Your task to perform on an android device: change keyboard looks Image 0: 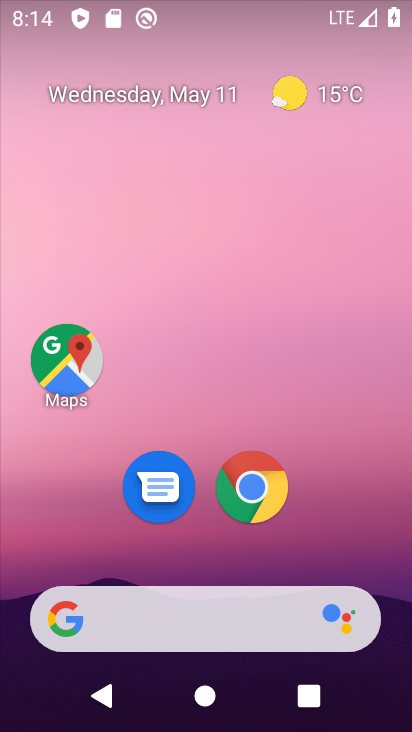
Step 0: click (267, 336)
Your task to perform on an android device: change keyboard looks Image 1: 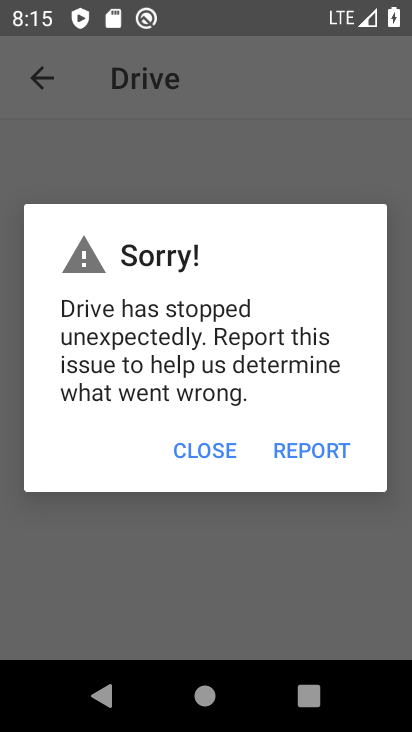
Step 1: press home button
Your task to perform on an android device: change keyboard looks Image 2: 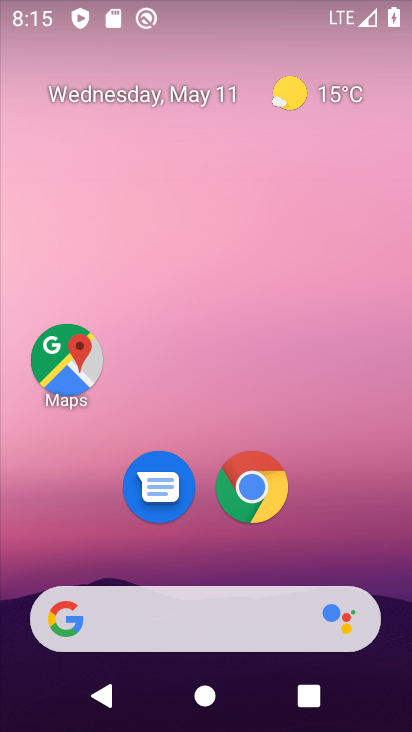
Step 2: drag from (288, 652) to (316, 210)
Your task to perform on an android device: change keyboard looks Image 3: 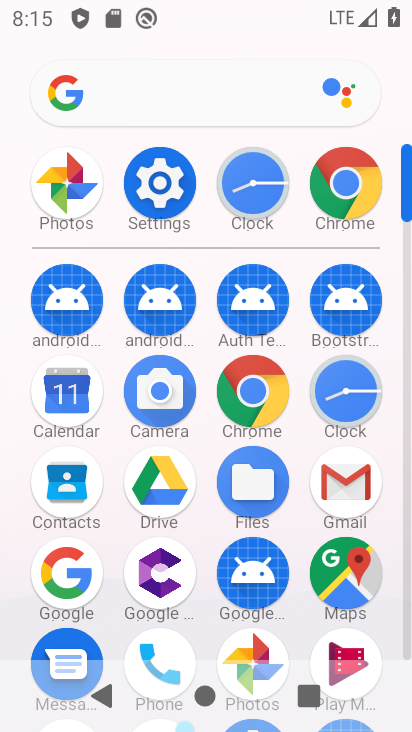
Step 3: click (167, 169)
Your task to perform on an android device: change keyboard looks Image 4: 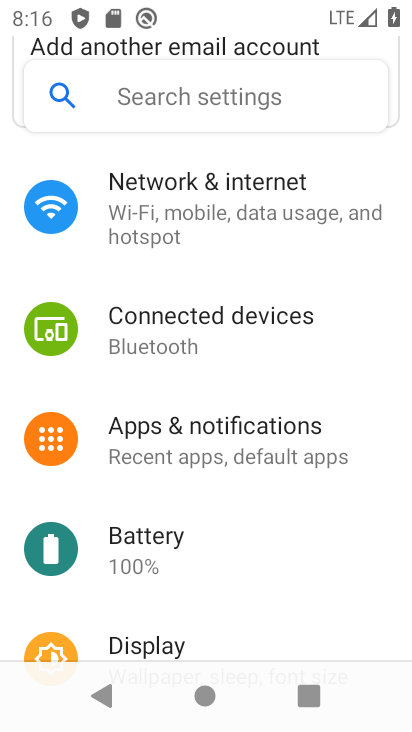
Step 4: click (182, 111)
Your task to perform on an android device: change keyboard looks Image 5: 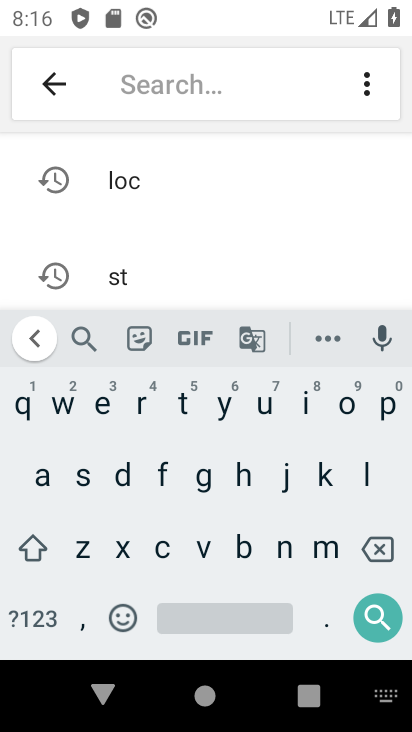
Step 5: click (318, 469)
Your task to perform on an android device: change keyboard looks Image 6: 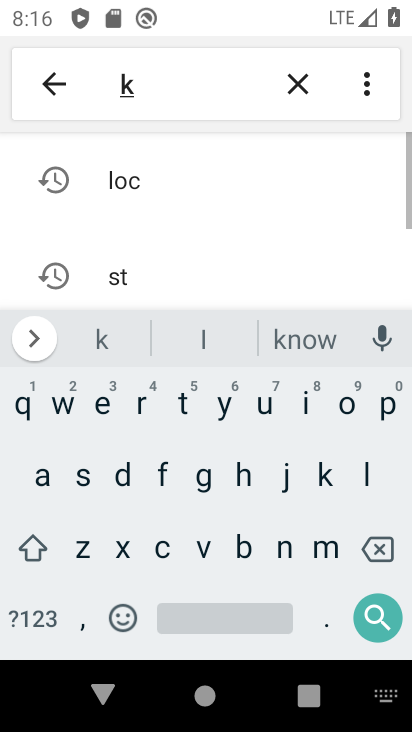
Step 6: click (102, 411)
Your task to perform on an android device: change keyboard looks Image 7: 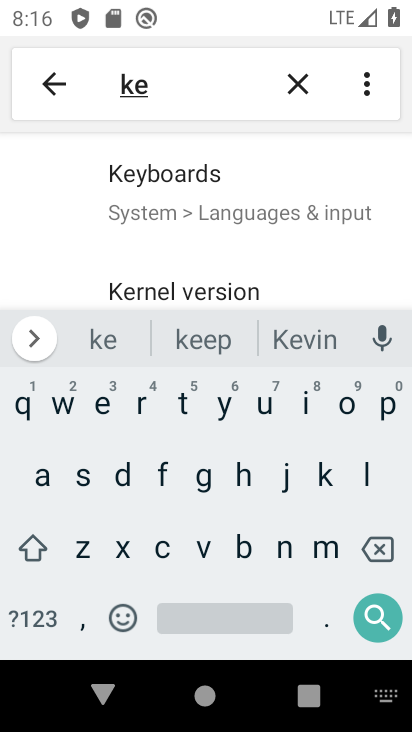
Step 7: click (236, 213)
Your task to perform on an android device: change keyboard looks Image 8: 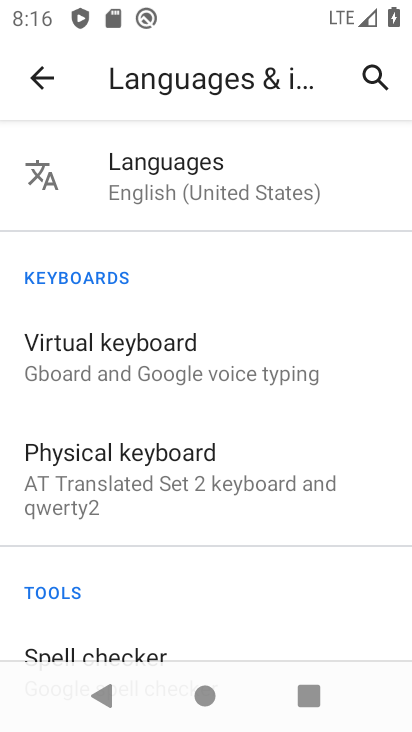
Step 8: drag from (185, 272) to (285, 550)
Your task to perform on an android device: change keyboard looks Image 9: 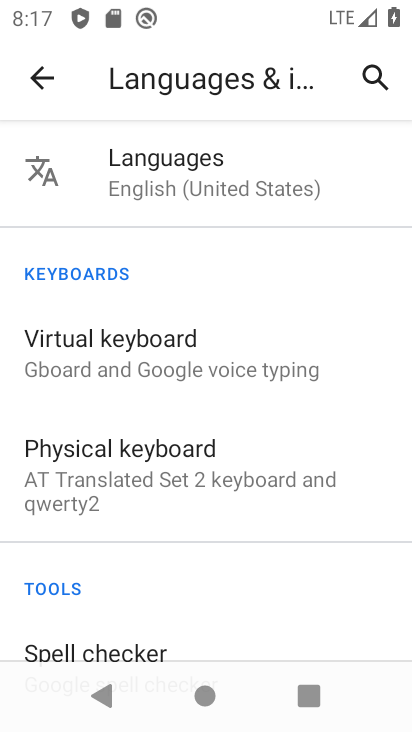
Step 9: click (163, 351)
Your task to perform on an android device: change keyboard looks Image 10: 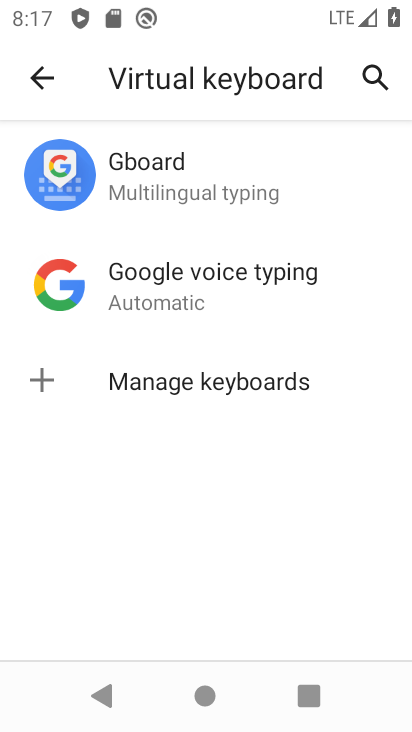
Step 10: click (172, 173)
Your task to perform on an android device: change keyboard looks Image 11: 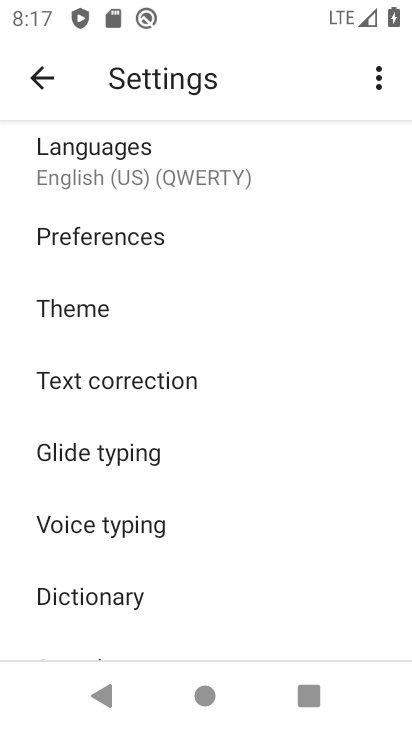
Step 11: click (133, 321)
Your task to perform on an android device: change keyboard looks Image 12: 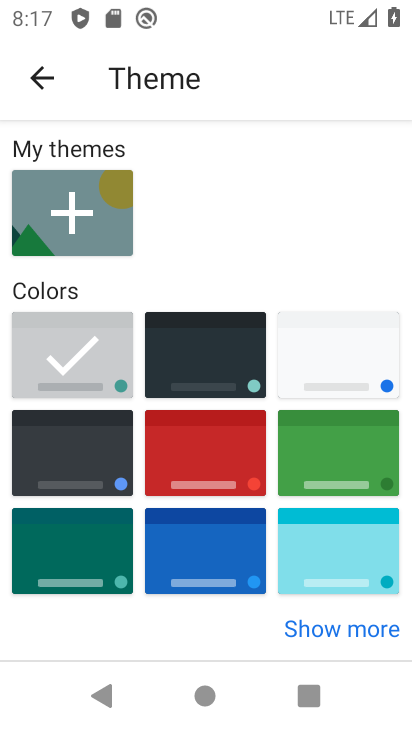
Step 12: click (338, 470)
Your task to perform on an android device: change keyboard looks Image 13: 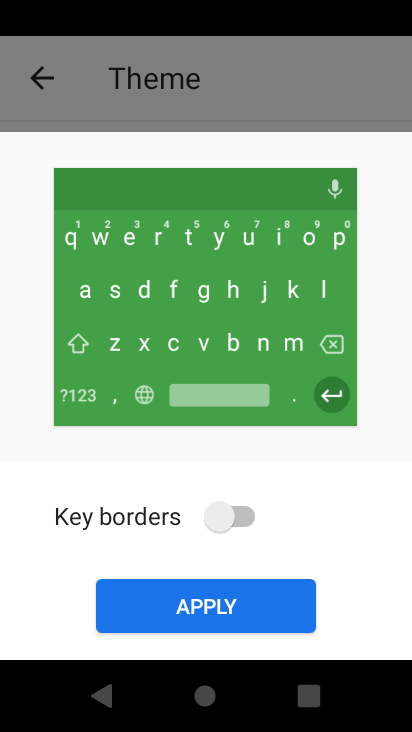
Step 13: click (230, 509)
Your task to perform on an android device: change keyboard looks Image 14: 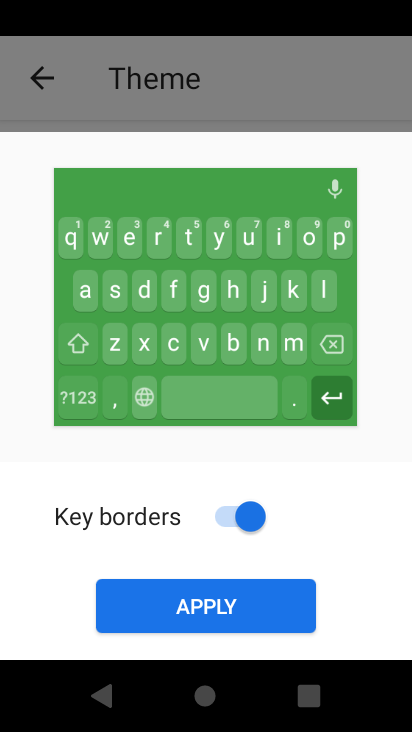
Step 14: click (208, 589)
Your task to perform on an android device: change keyboard looks Image 15: 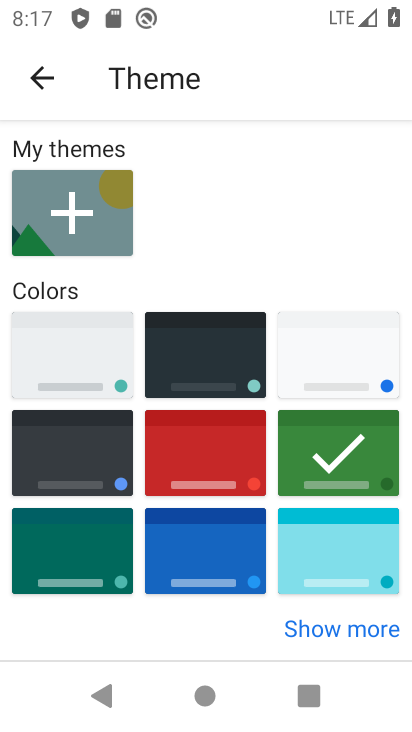
Step 15: task complete